Your task to perform on an android device: star an email in the gmail app Image 0: 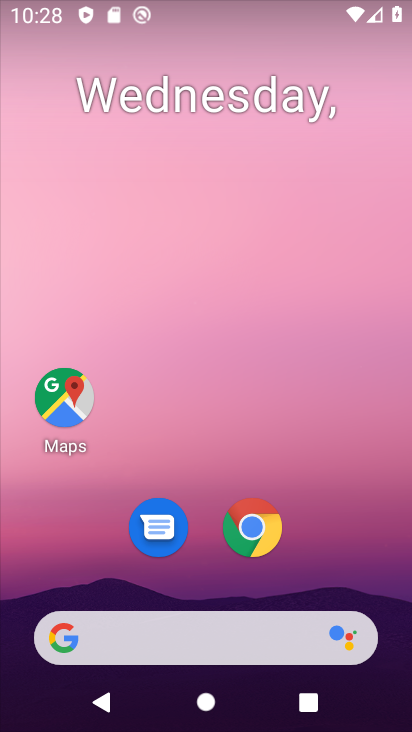
Step 0: drag from (382, 499) to (398, 17)
Your task to perform on an android device: star an email in the gmail app Image 1: 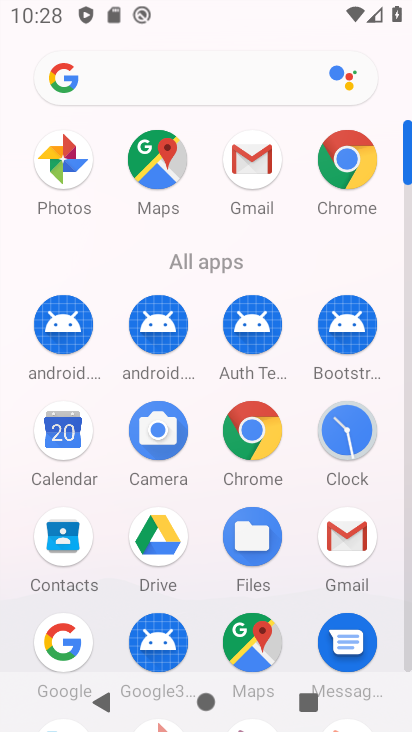
Step 1: click (242, 167)
Your task to perform on an android device: star an email in the gmail app Image 2: 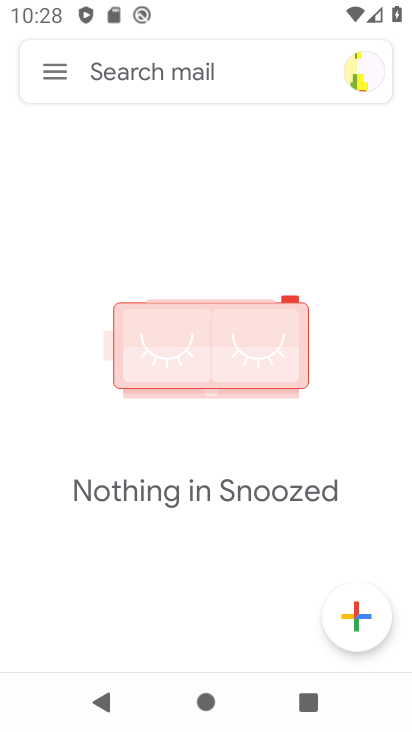
Step 2: click (50, 78)
Your task to perform on an android device: star an email in the gmail app Image 3: 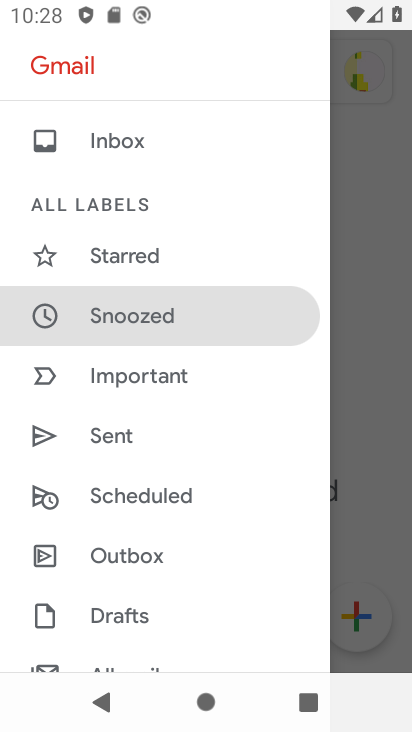
Step 3: drag from (205, 591) to (200, 336)
Your task to perform on an android device: star an email in the gmail app Image 4: 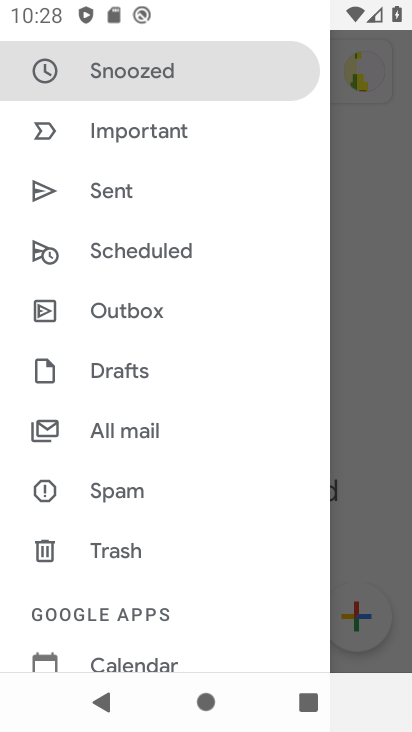
Step 4: click (100, 438)
Your task to perform on an android device: star an email in the gmail app Image 5: 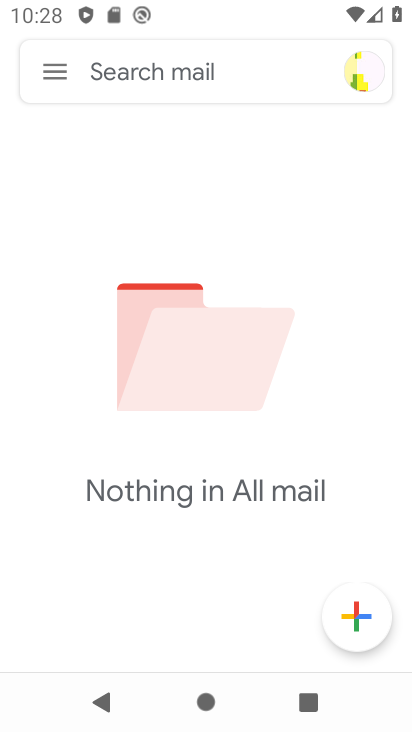
Step 5: task complete